Your task to perform on an android device: Open notification settings Image 0: 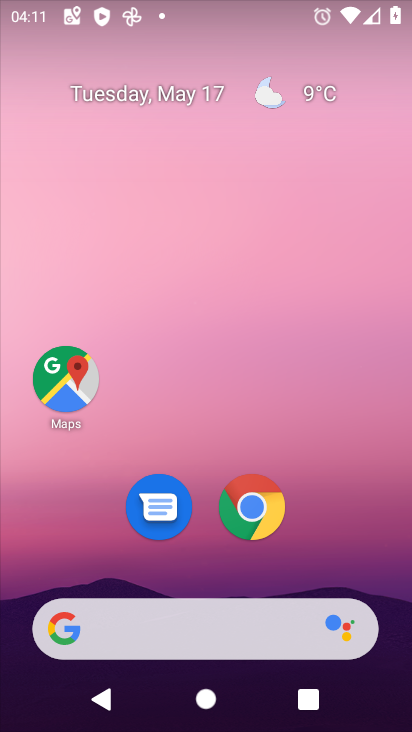
Step 0: drag from (311, 562) to (211, 89)
Your task to perform on an android device: Open notification settings Image 1: 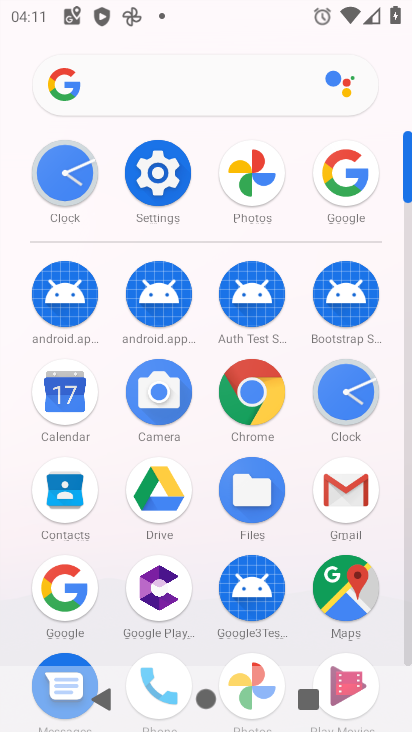
Step 1: click (145, 177)
Your task to perform on an android device: Open notification settings Image 2: 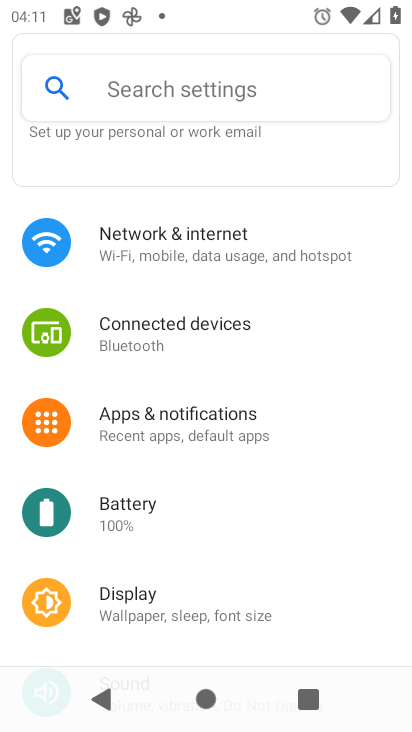
Step 2: click (224, 426)
Your task to perform on an android device: Open notification settings Image 3: 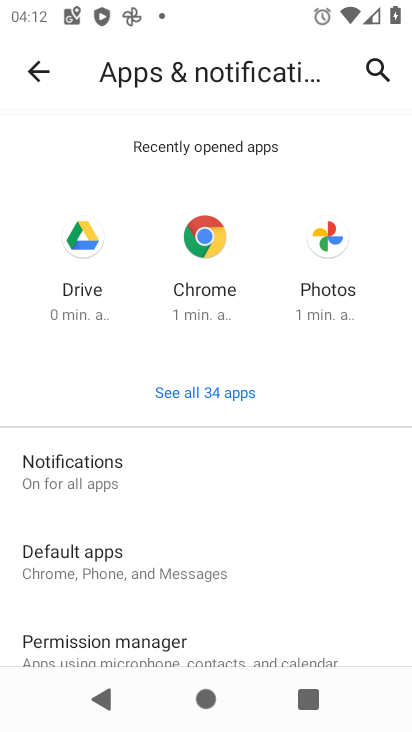
Step 3: click (219, 478)
Your task to perform on an android device: Open notification settings Image 4: 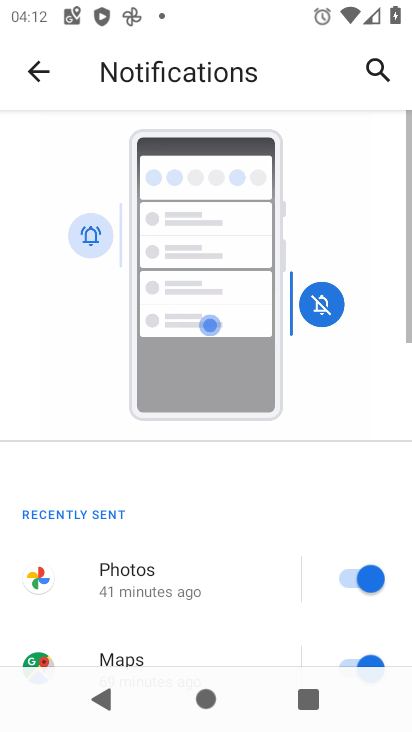
Step 4: task complete